Your task to perform on an android device: open app "Nova Launcher" (install if not already installed) Image 0: 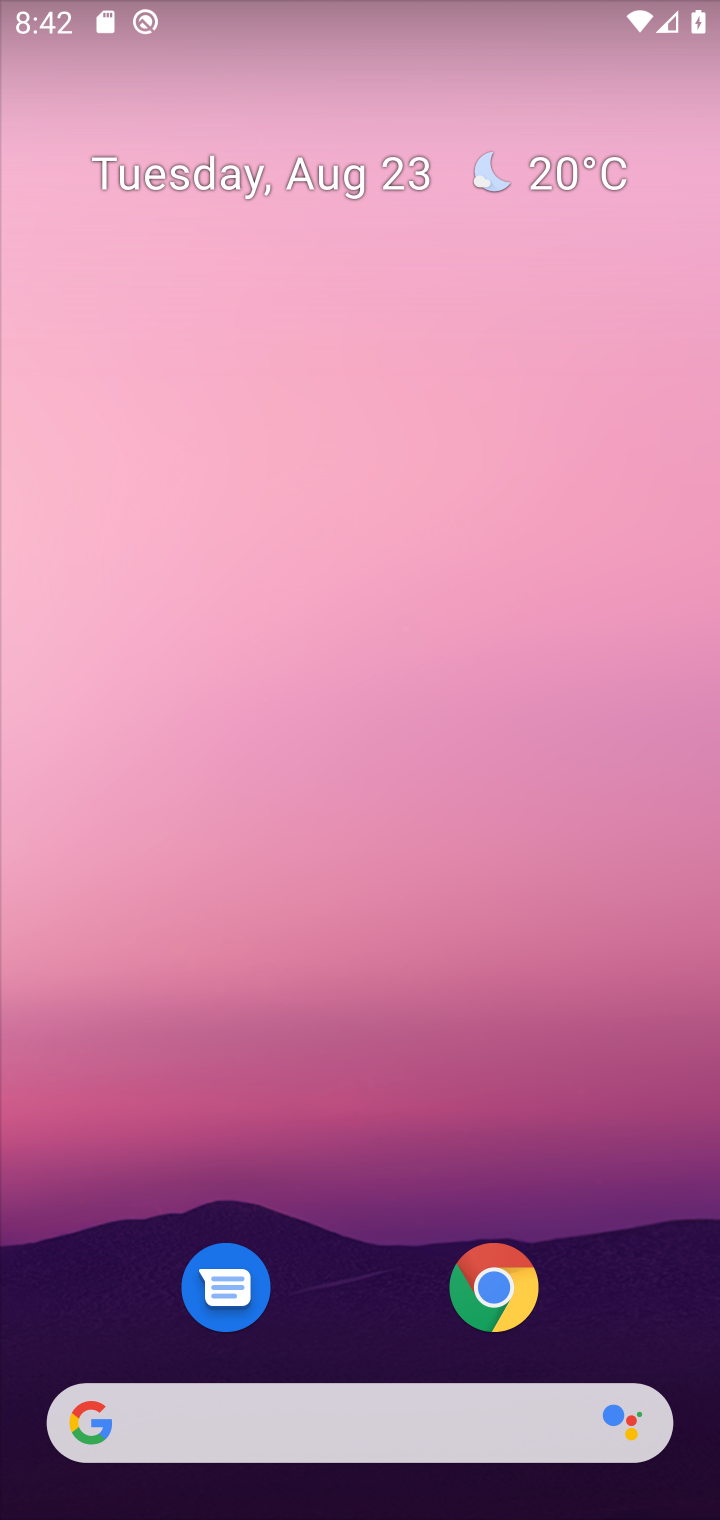
Step 0: drag from (313, 978) to (352, 61)
Your task to perform on an android device: open app "Nova Launcher" (install if not already installed) Image 1: 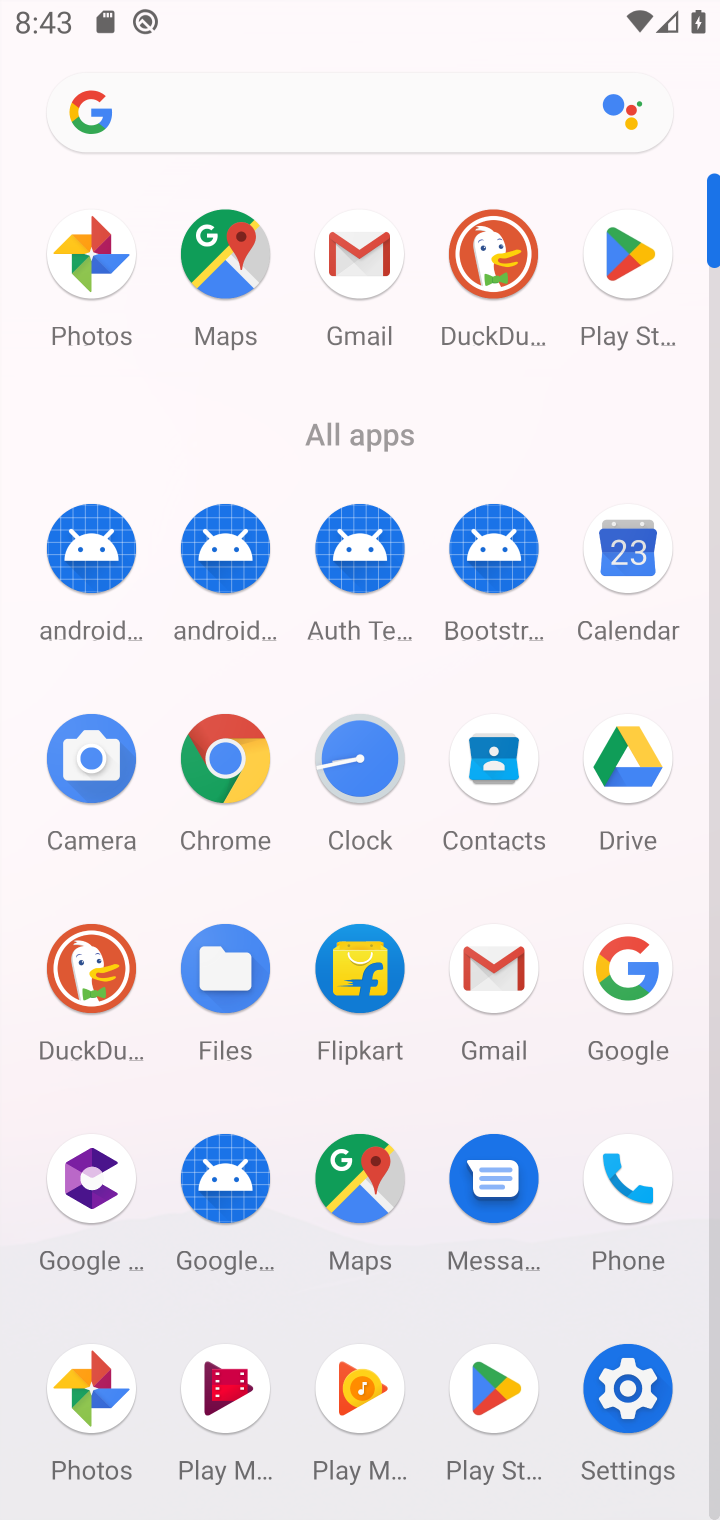
Step 1: click (624, 268)
Your task to perform on an android device: open app "Nova Launcher" (install if not already installed) Image 2: 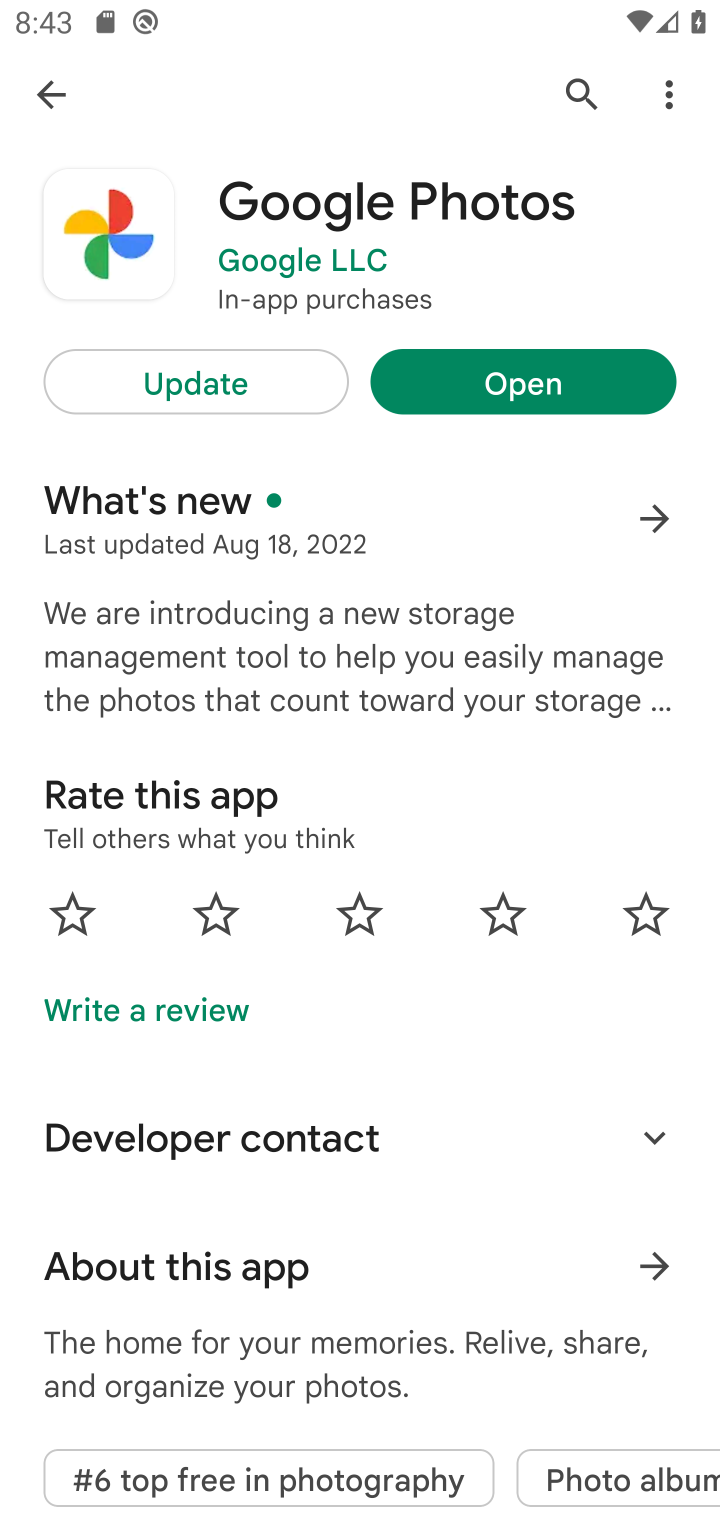
Step 2: click (582, 84)
Your task to perform on an android device: open app "Nova Launcher" (install if not already installed) Image 3: 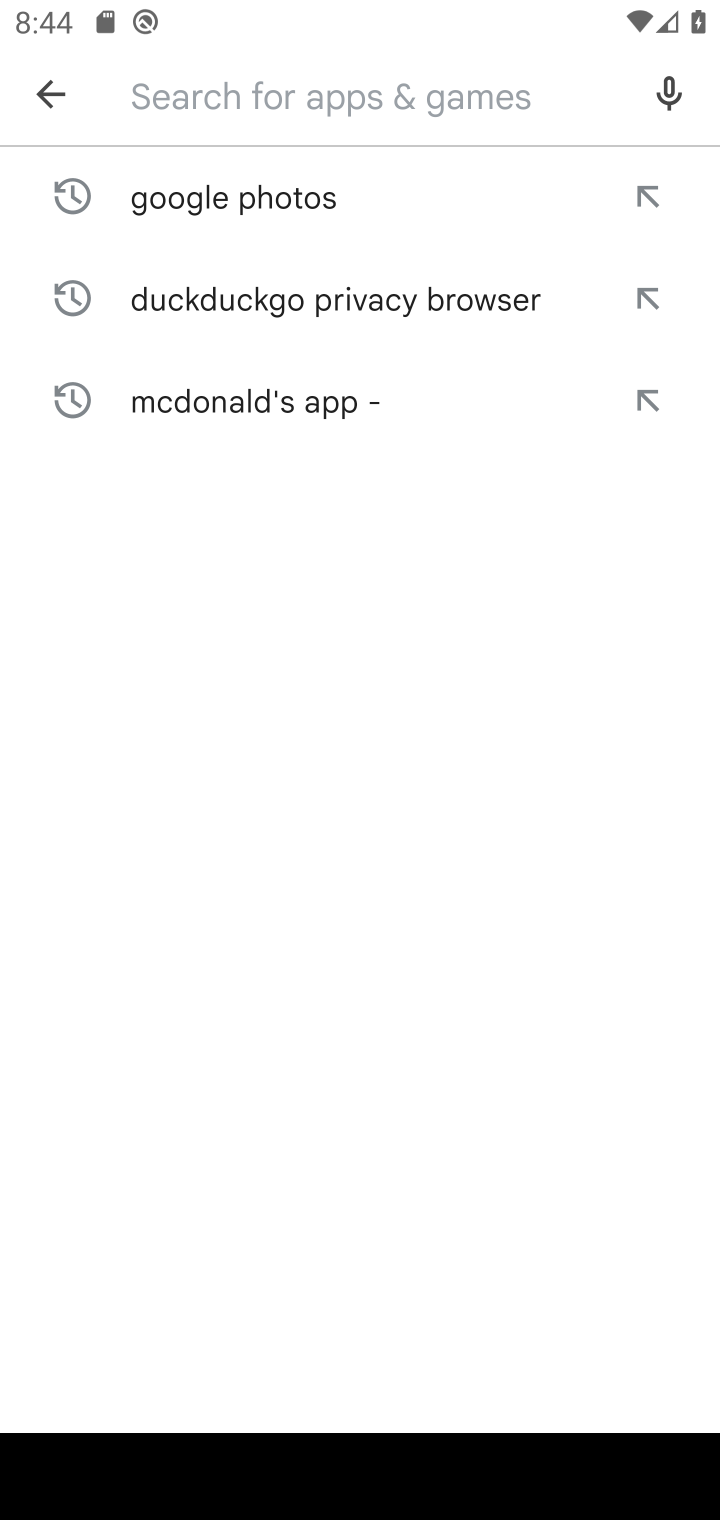
Step 3: type "Nova Launcher"
Your task to perform on an android device: open app "Nova Launcher" (install if not already installed) Image 4: 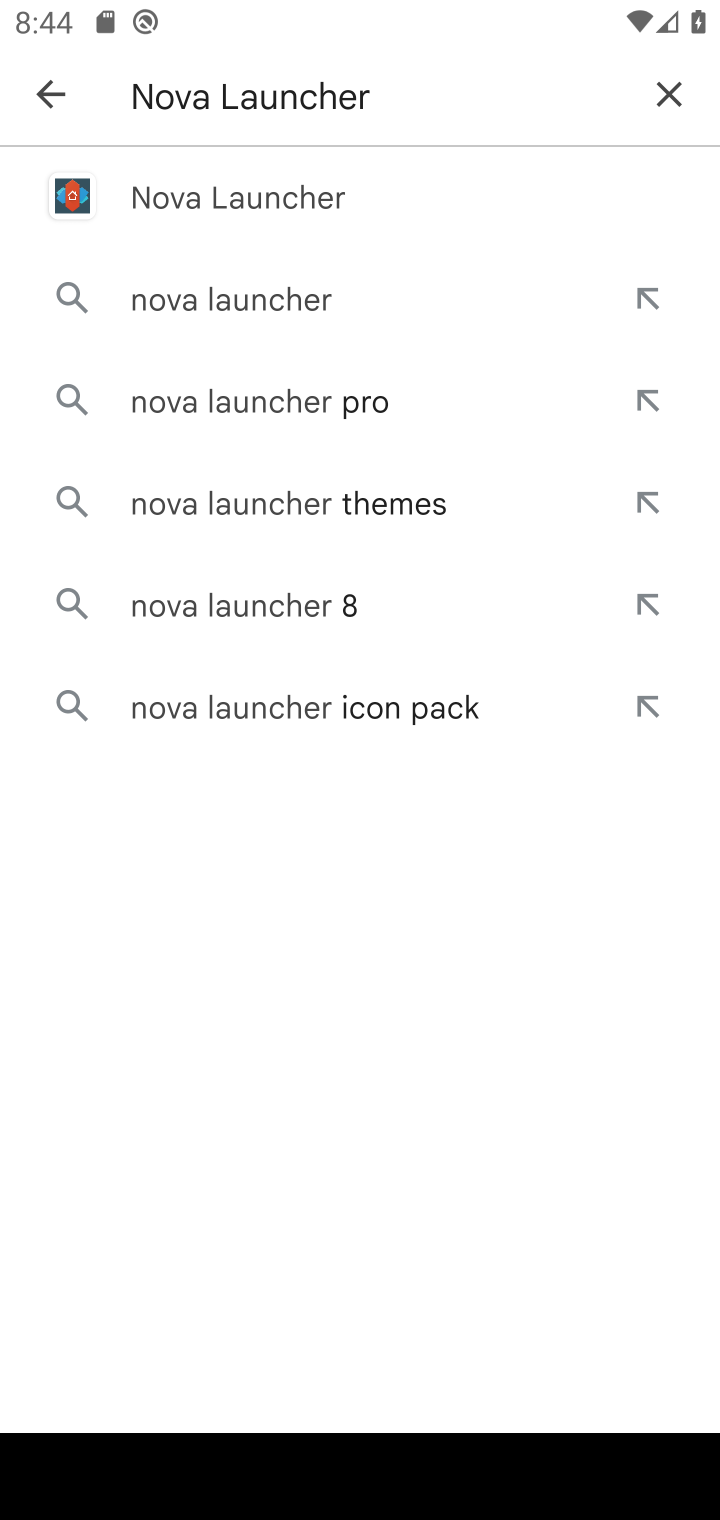
Step 4: click (235, 197)
Your task to perform on an android device: open app "Nova Launcher" (install if not already installed) Image 5: 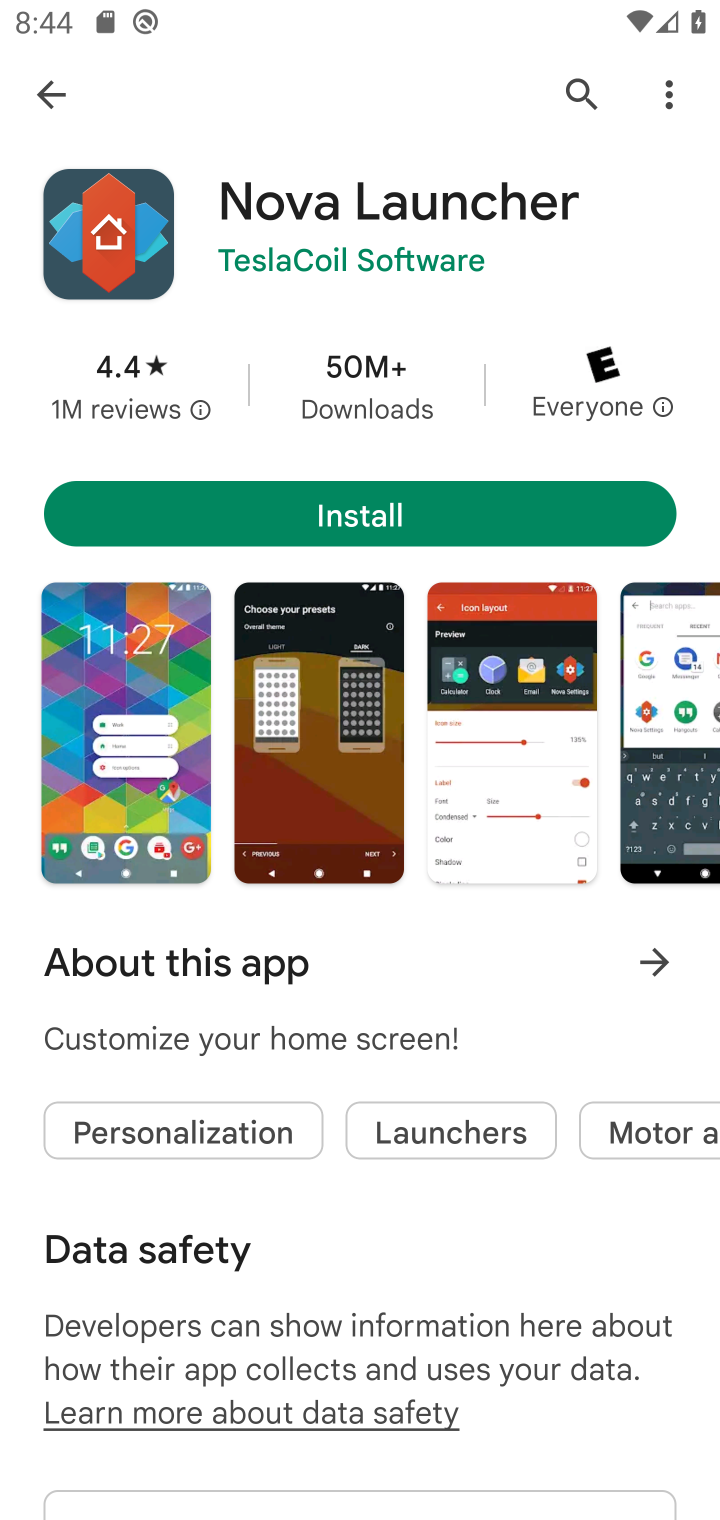
Step 5: click (395, 505)
Your task to perform on an android device: open app "Nova Launcher" (install if not already installed) Image 6: 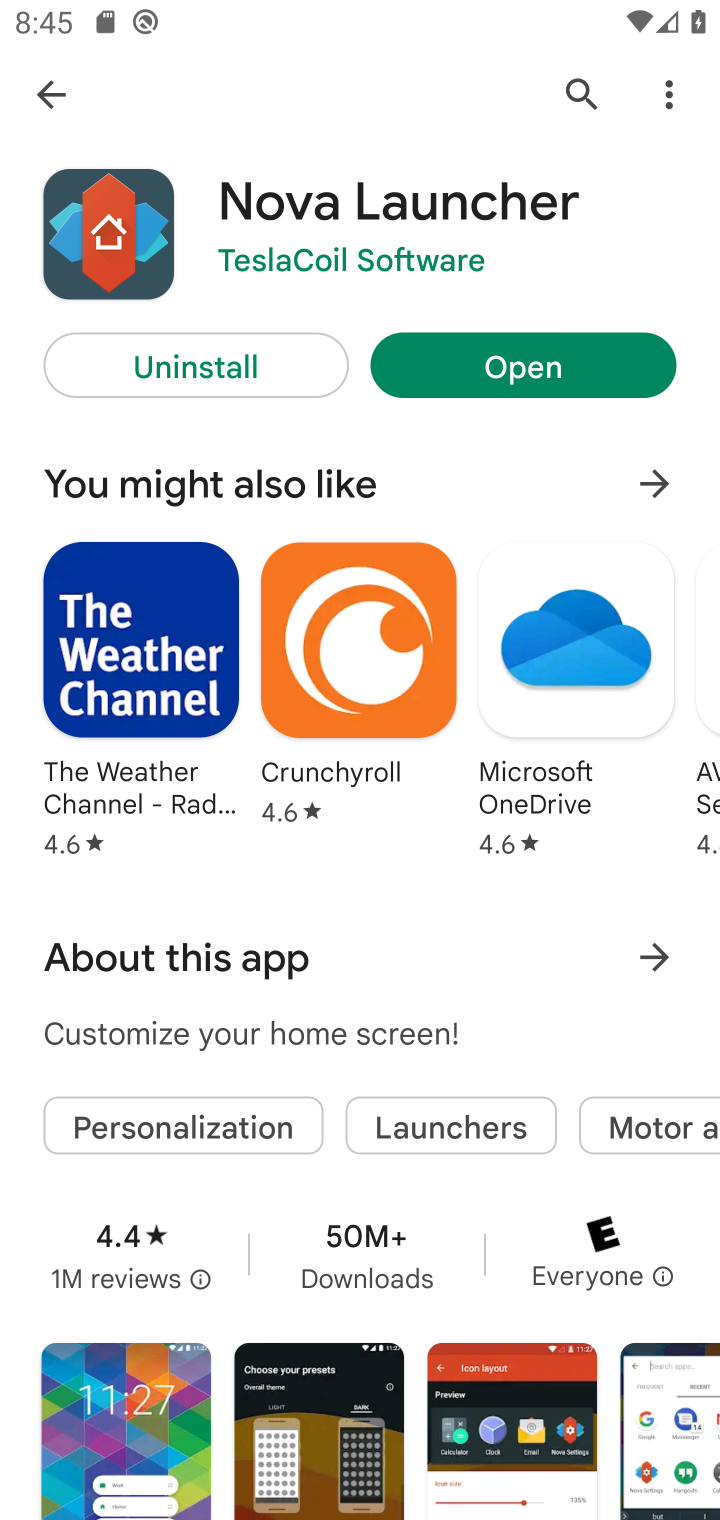
Step 6: click (552, 363)
Your task to perform on an android device: open app "Nova Launcher" (install if not already installed) Image 7: 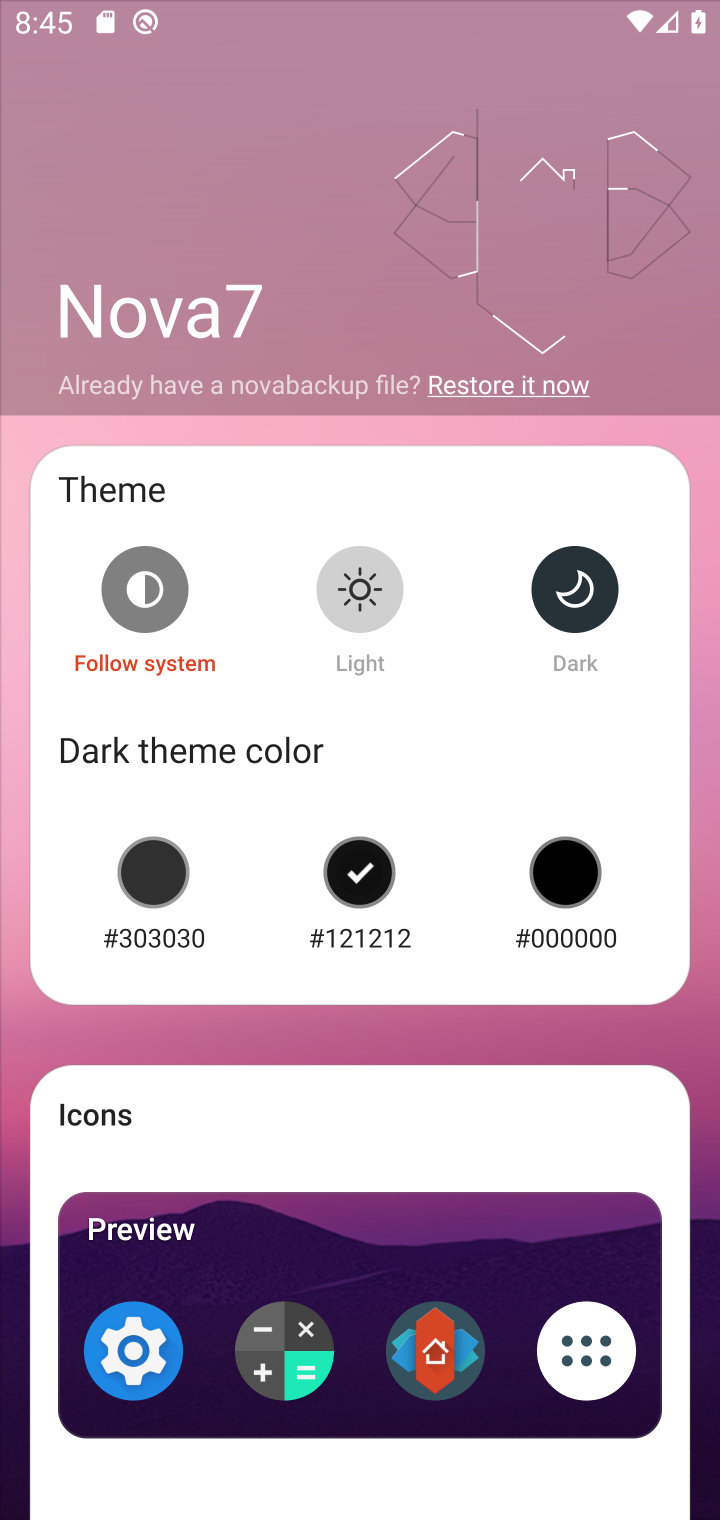
Step 7: task complete